Your task to perform on an android device: toggle pop-ups in chrome Image 0: 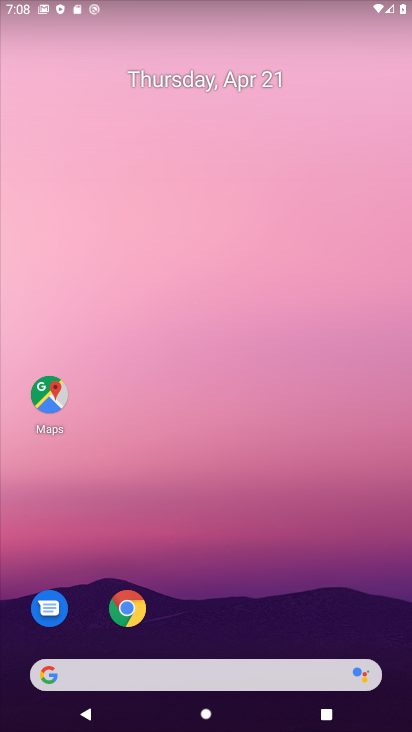
Step 0: click (133, 611)
Your task to perform on an android device: toggle pop-ups in chrome Image 1: 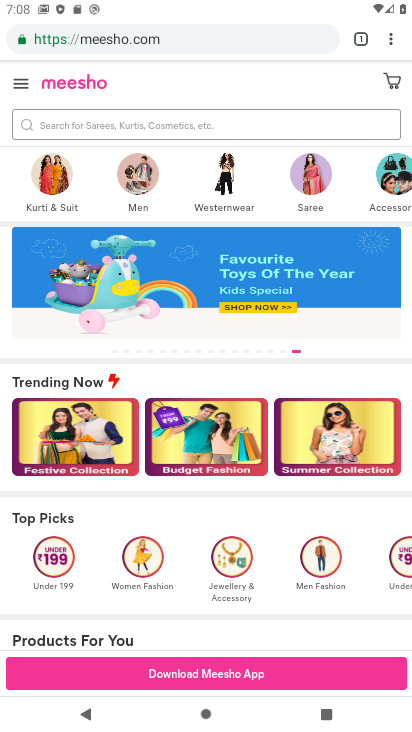
Step 1: click (391, 41)
Your task to perform on an android device: toggle pop-ups in chrome Image 2: 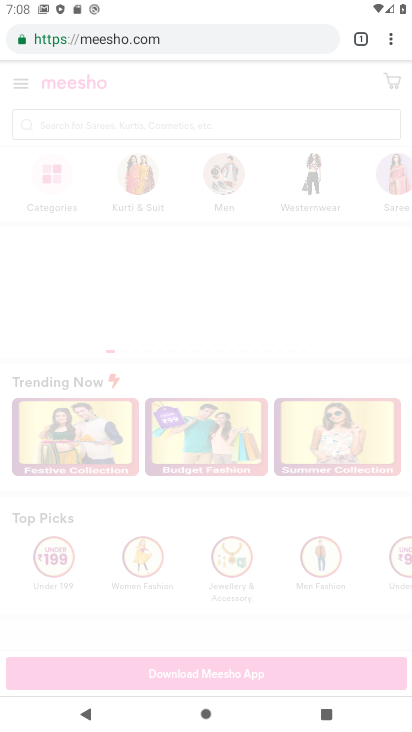
Step 2: drag from (390, 41) to (267, 516)
Your task to perform on an android device: toggle pop-ups in chrome Image 3: 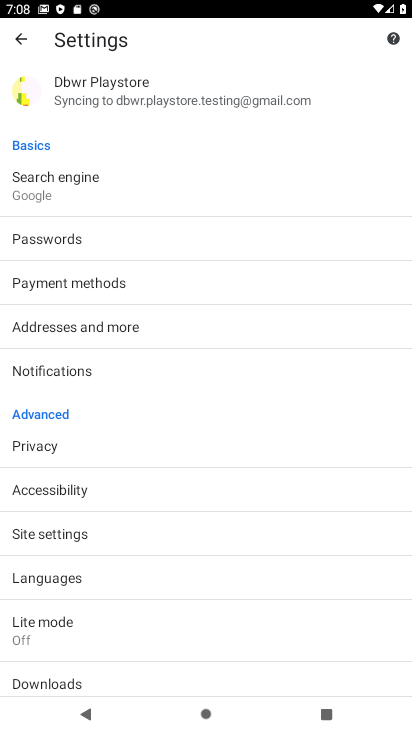
Step 3: click (107, 535)
Your task to perform on an android device: toggle pop-ups in chrome Image 4: 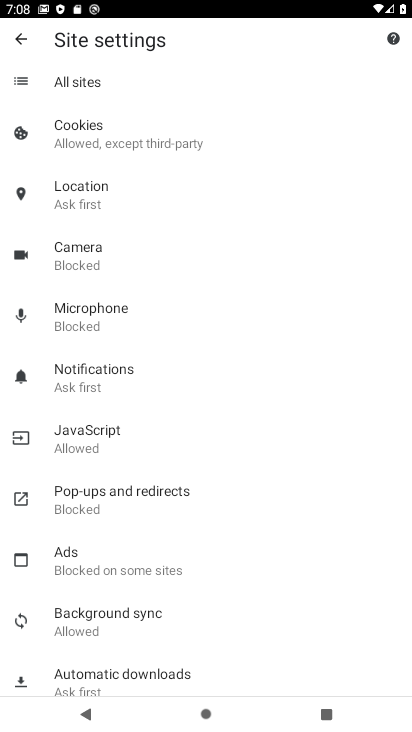
Step 4: click (126, 497)
Your task to perform on an android device: toggle pop-ups in chrome Image 5: 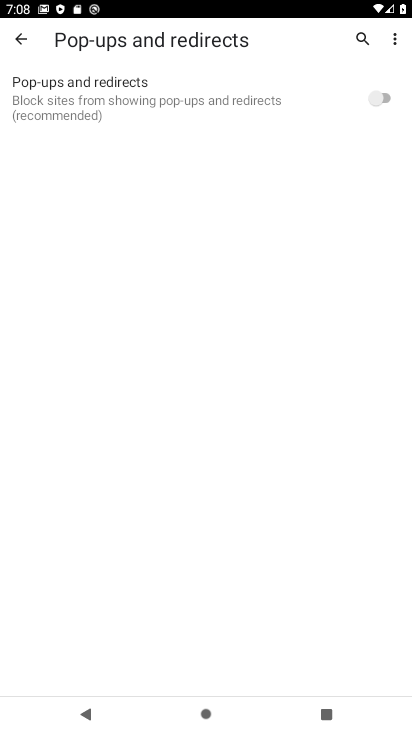
Step 5: click (373, 93)
Your task to perform on an android device: toggle pop-ups in chrome Image 6: 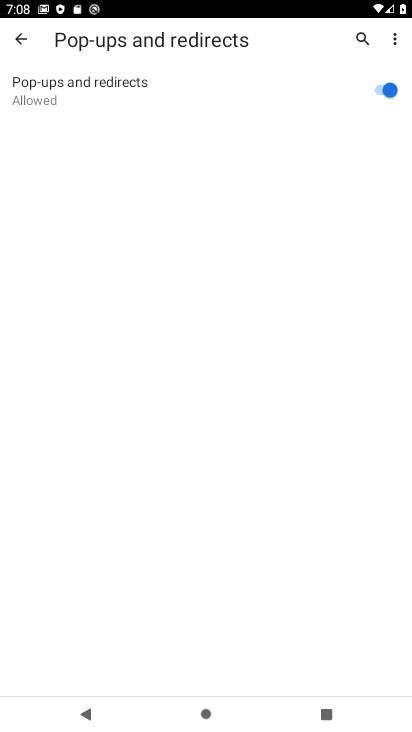
Step 6: task complete